Your task to perform on an android device: What's the news in Vietnam? Image 0: 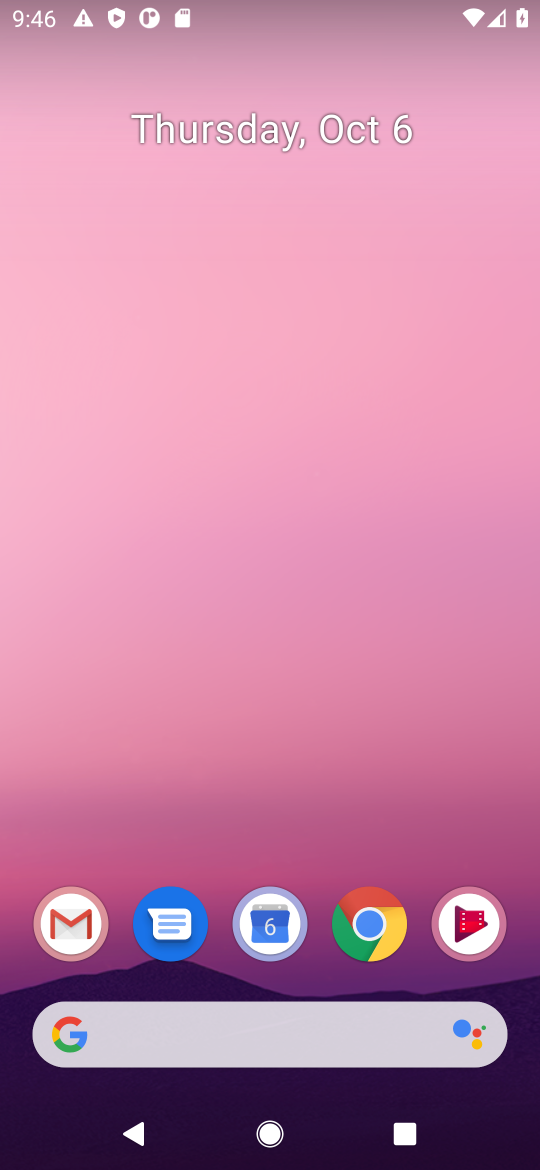
Step 0: click (370, 908)
Your task to perform on an android device: What's the news in Vietnam? Image 1: 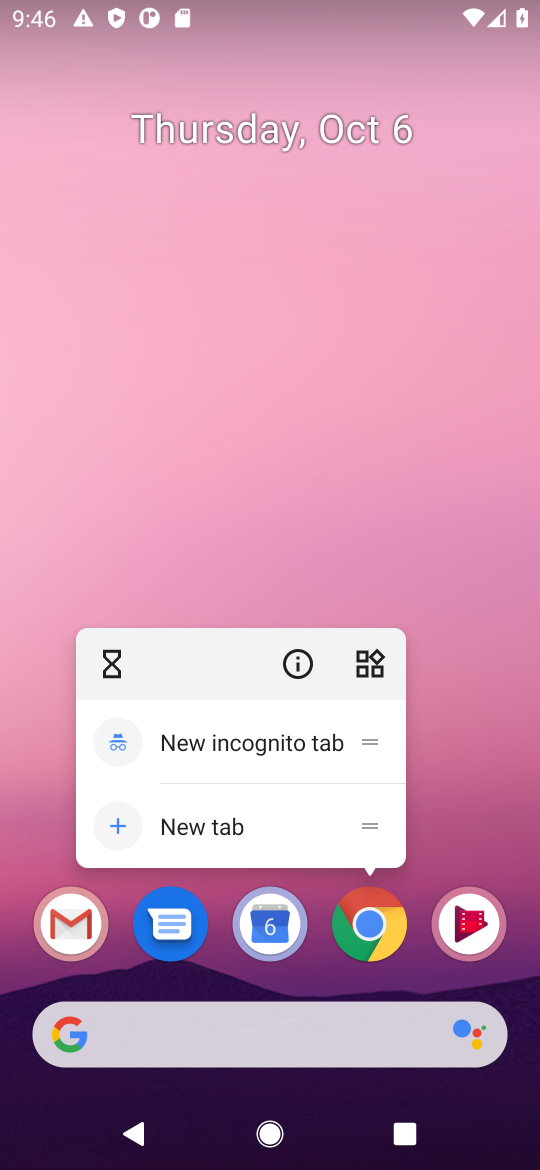
Step 1: click (371, 918)
Your task to perform on an android device: What's the news in Vietnam? Image 2: 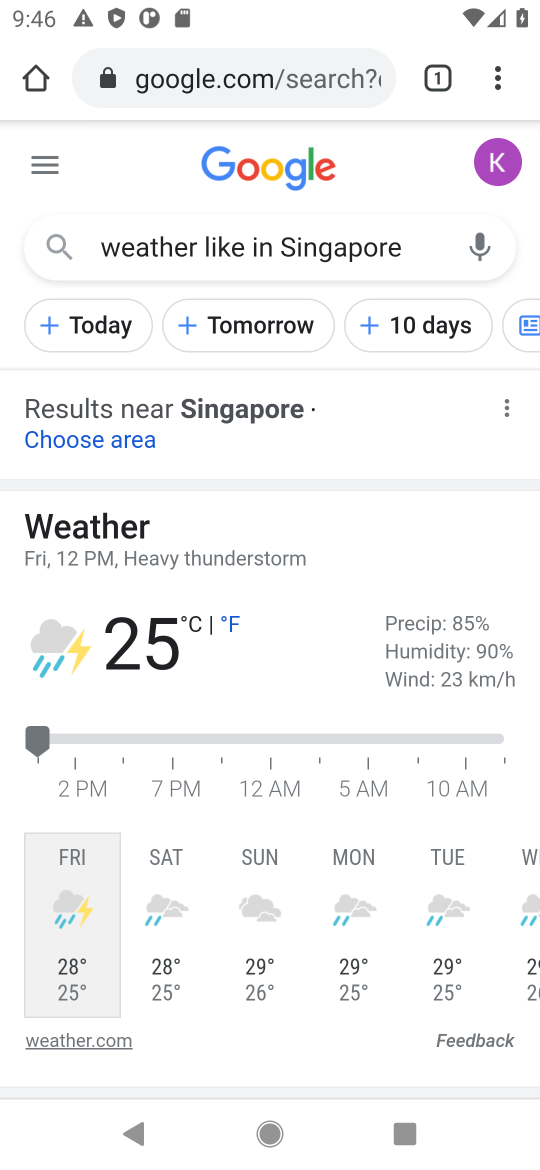
Step 2: click (334, 78)
Your task to perform on an android device: What's the news in Vietnam? Image 3: 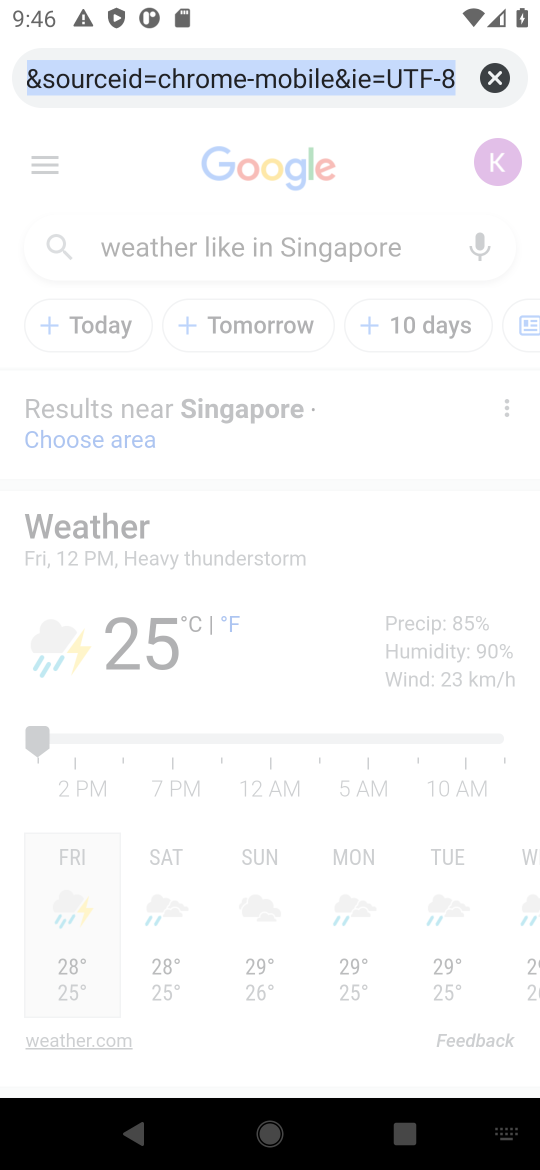
Step 3: click (493, 73)
Your task to perform on an android device: What's the news in Vietnam? Image 4: 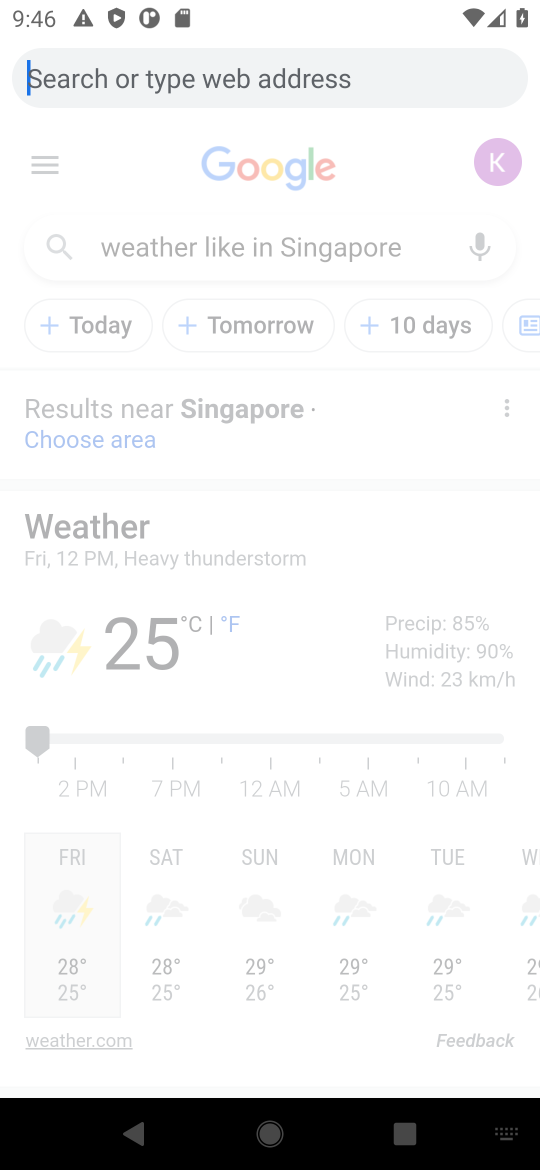
Step 4: type "news in Vietnam"
Your task to perform on an android device: What's the news in Vietnam? Image 5: 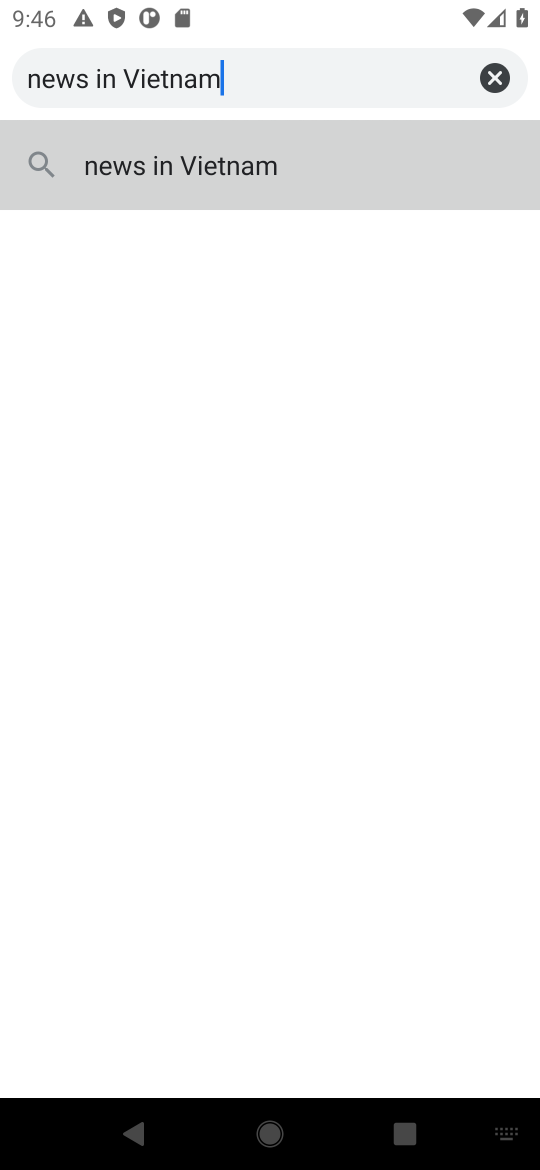
Step 5: click (205, 161)
Your task to perform on an android device: What's the news in Vietnam? Image 6: 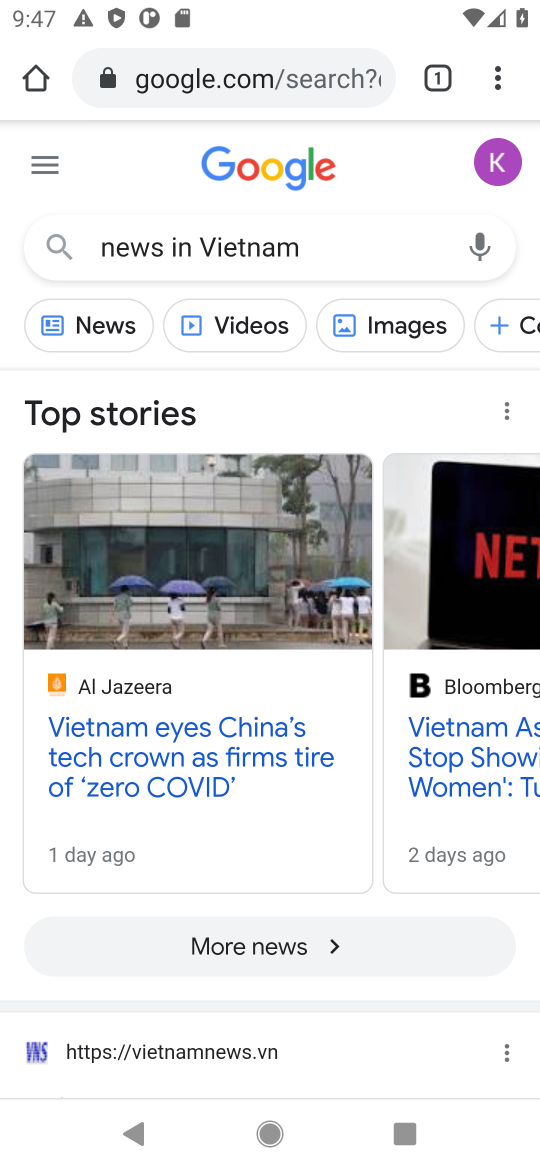
Step 6: click (102, 317)
Your task to perform on an android device: What's the news in Vietnam? Image 7: 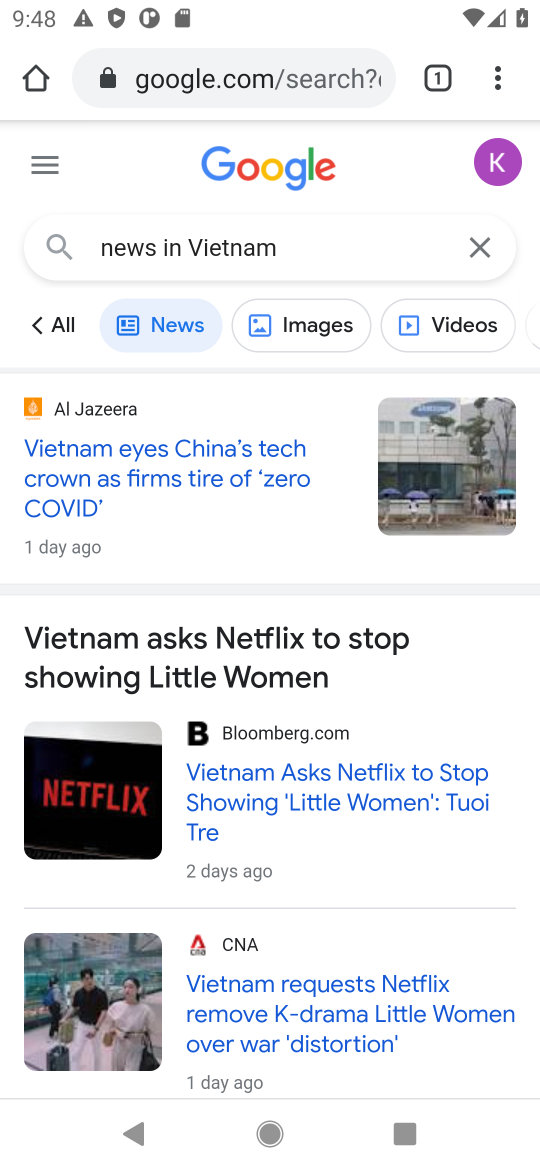
Step 7: task complete